Your task to perform on an android device: What's the weather going to be tomorrow? Image 0: 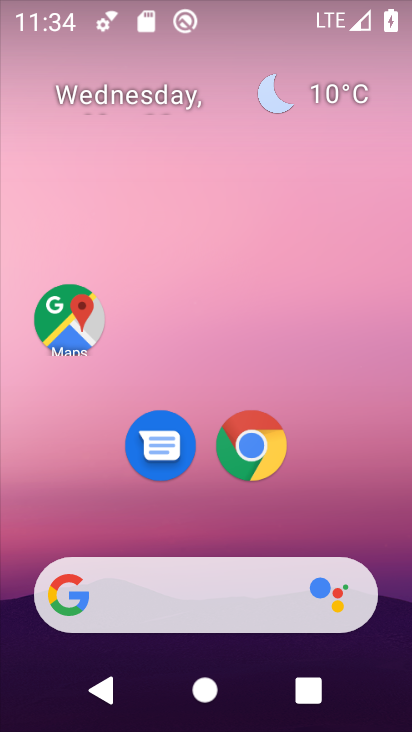
Step 0: click (285, 88)
Your task to perform on an android device: What's the weather going to be tomorrow? Image 1: 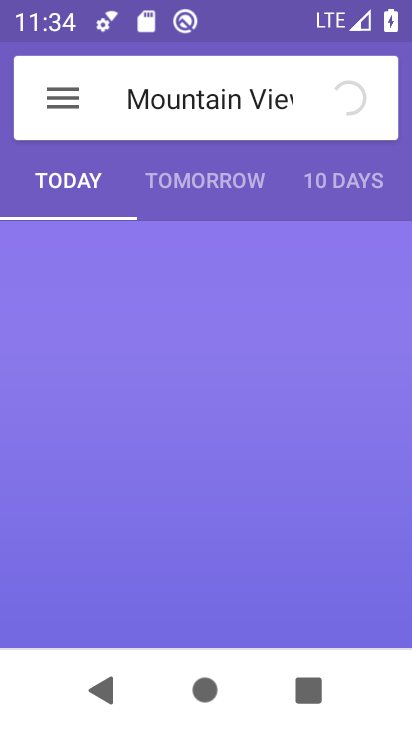
Step 1: click (198, 180)
Your task to perform on an android device: What's the weather going to be tomorrow? Image 2: 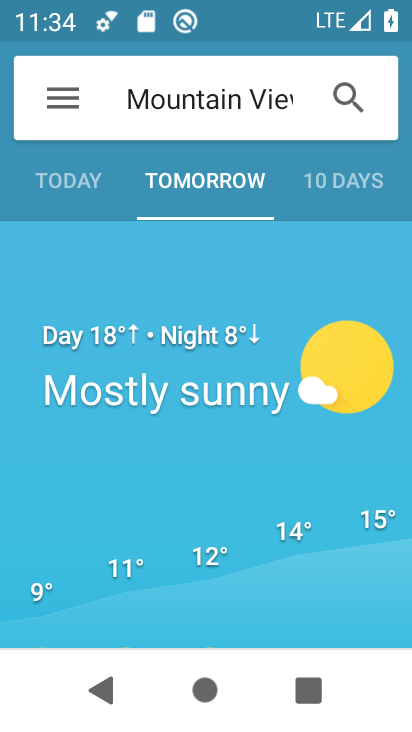
Step 2: task complete